Your task to perform on an android device: open app "Messages" Image 0: 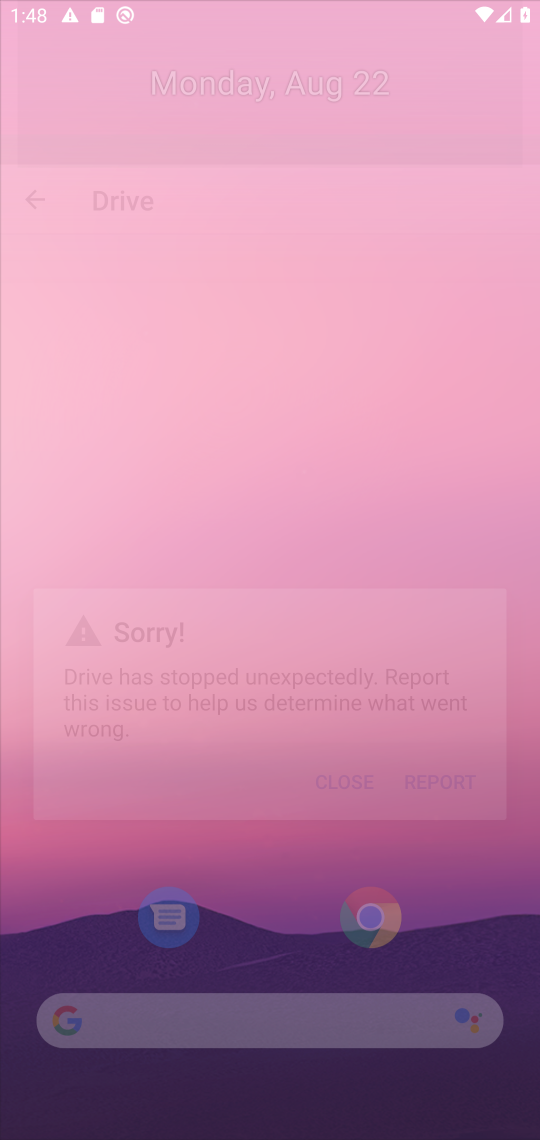
Step 0: press home button
Your task to perform on an android device: open app "Messages" Image 1: 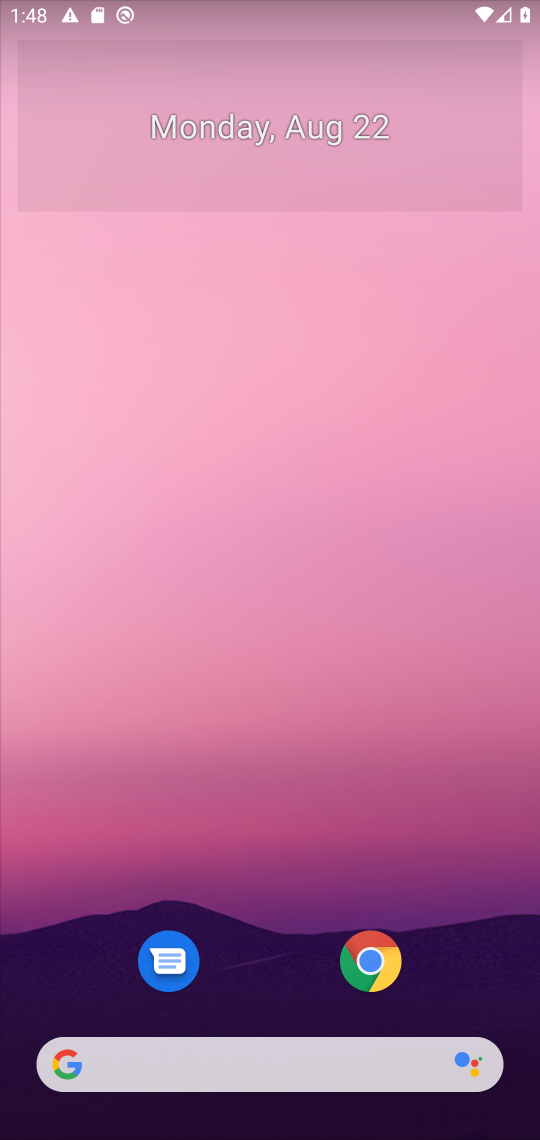
Step 1: drag from (471, 977) to (530, 161)
Your task to perform on an android device: open app "Messages" Image 2: 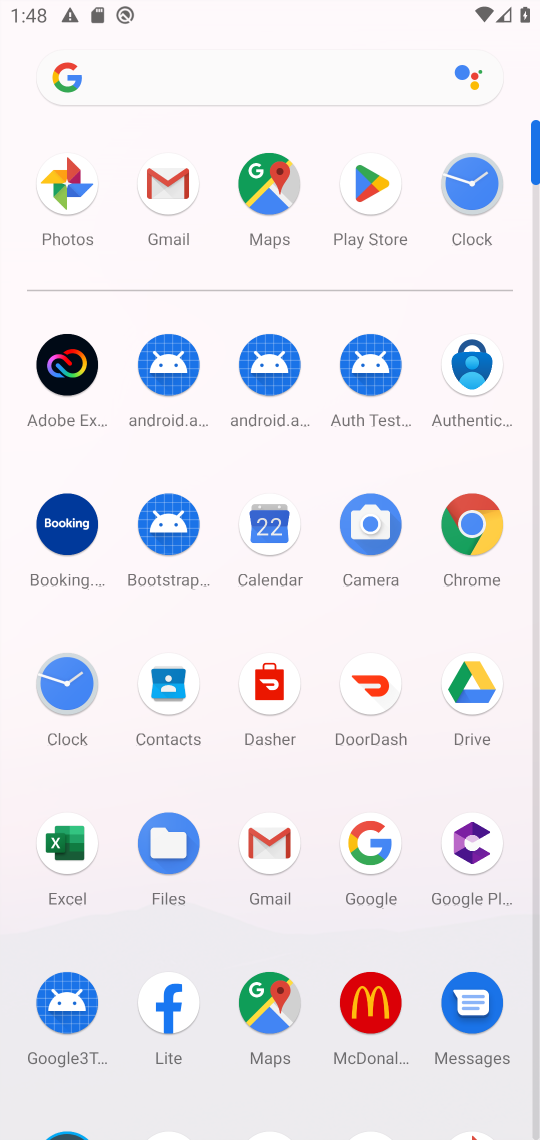
Step 2: click (369, 182)
Your task to perform on an android device: open app "Messages" Image 3: 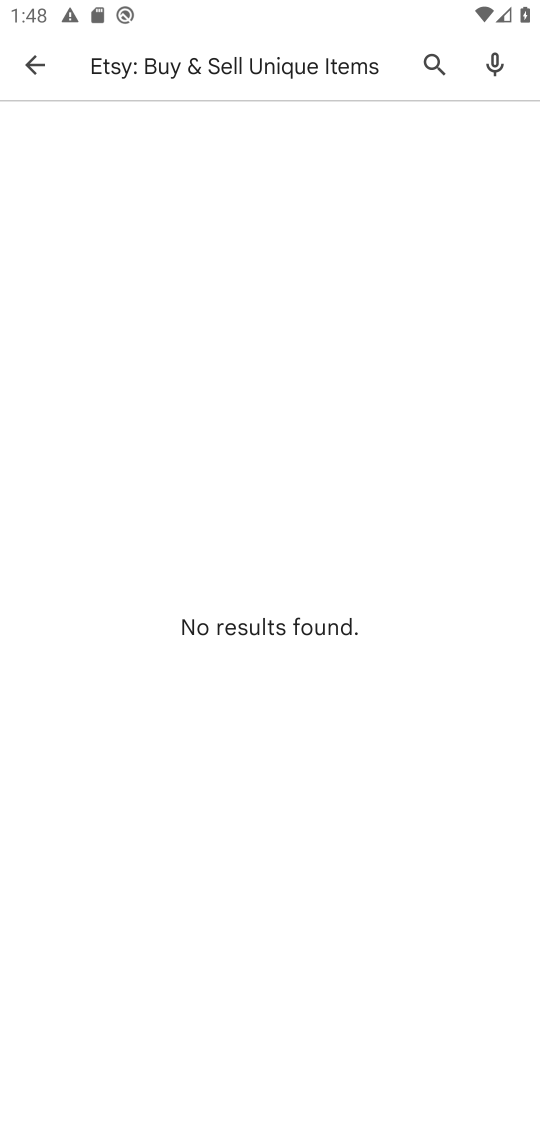
Step 3: press back button
Your task to perform on an android device: open app "Messages" Image 4: 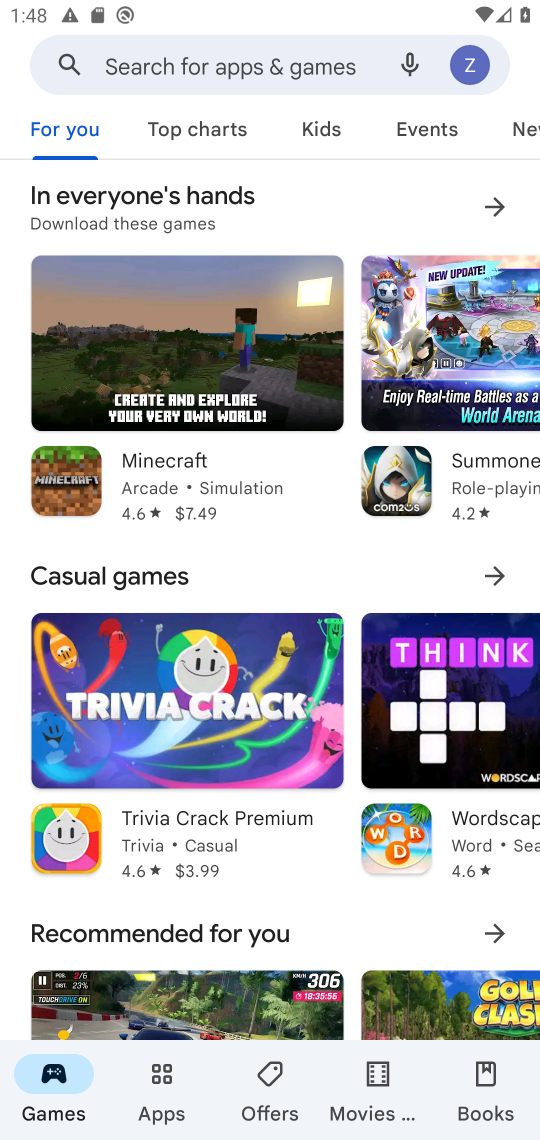
Step 4: click (331, 66)
Your task to perform on an android device: open app "Messages" Image 5: 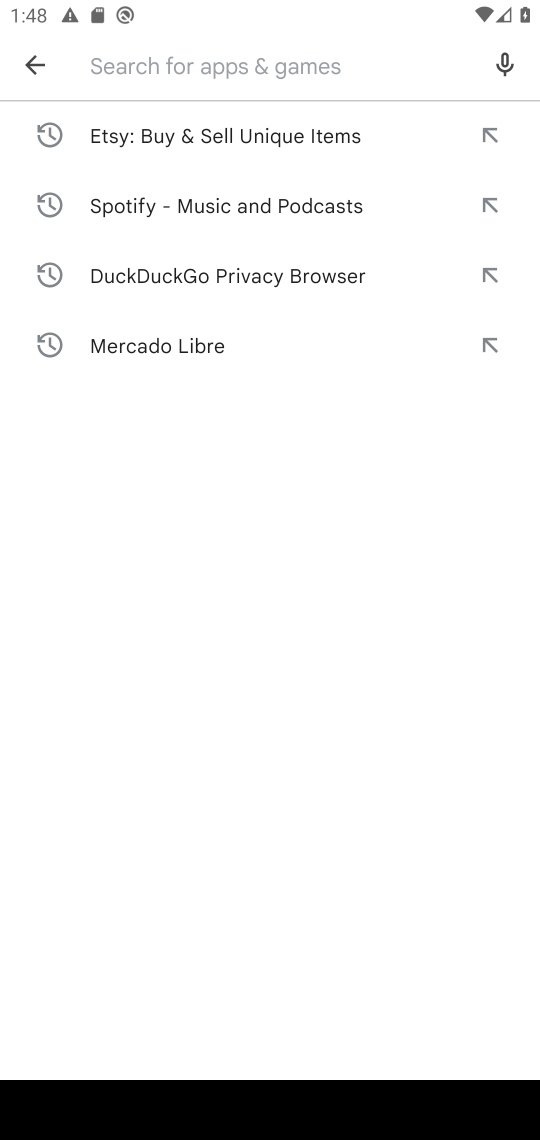
Step 5: type "Messages"
Your task to perform on an android device: open app "Messages" Image 6: 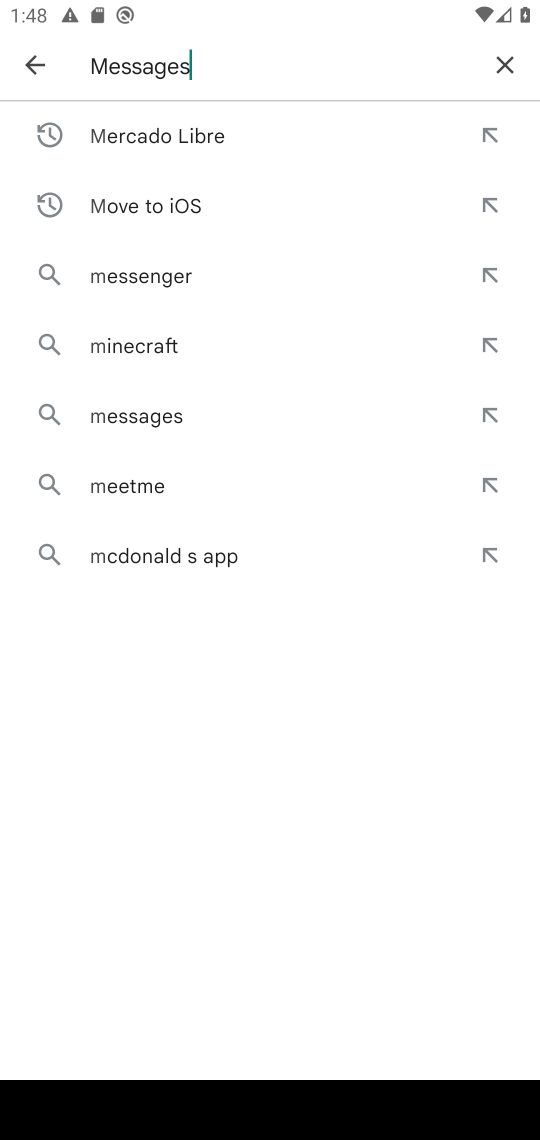
Step 6: press enter
Your task to perform on an android device: open app "Messages" Image 7: 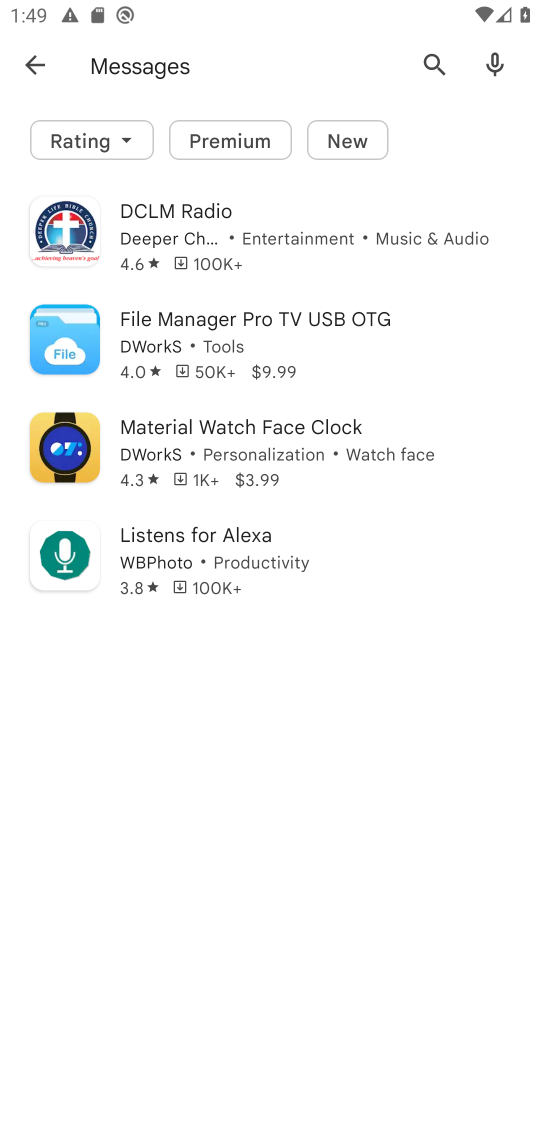
Step 7: task complete